Your task to perform on an android device: snooze an email in the gmail app Image 0: 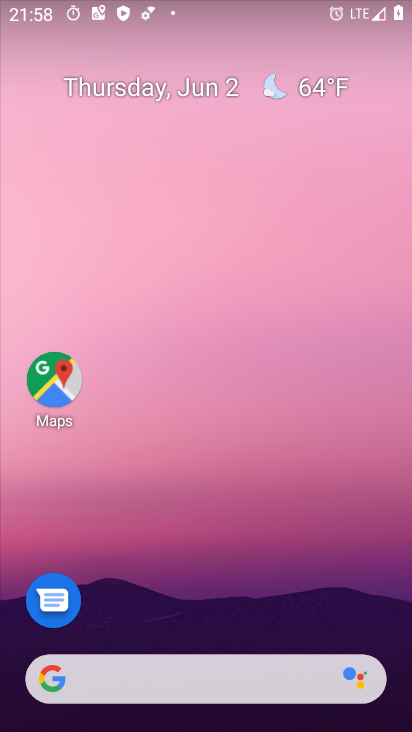
Step 0: drag from (176, 576) to (183, 98)
Your task to perform on an android device: snooze an email in the gmail app Image 1: 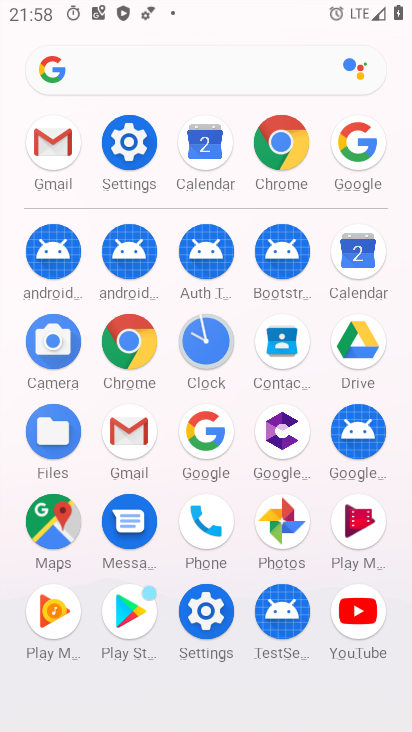
Step 1: click (125, 435)
Your task to perform on an android device: snooze an email in the gmail app Image 2: 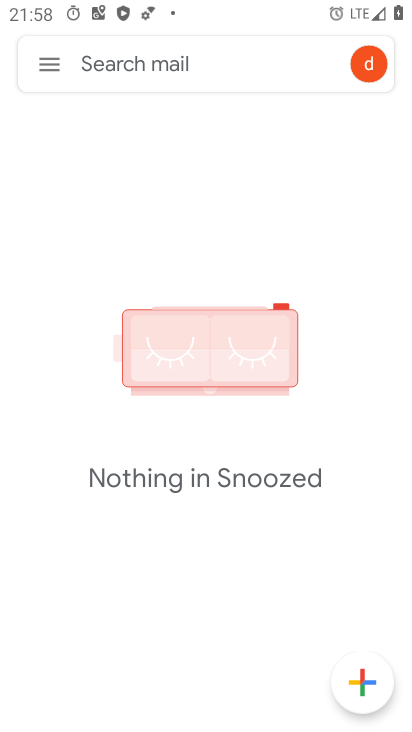
Step 2: click (45, 60)
Your task to perform on an android device: snooze an email in the gmail app Image 3: 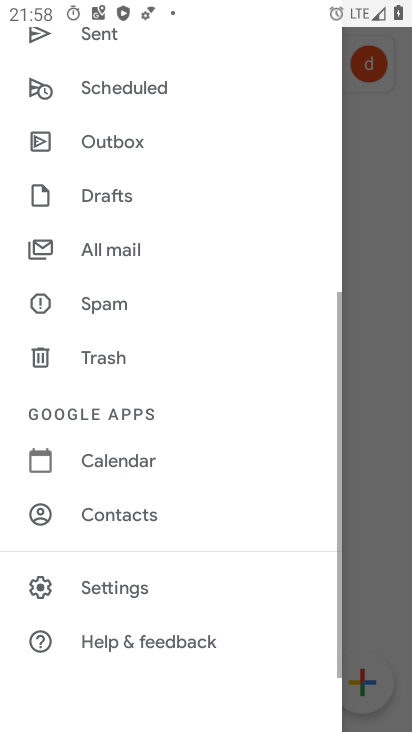
Step 3: click (111, 247)
Your task to perform on an android device: snooze an email in the gmail app Image 4: 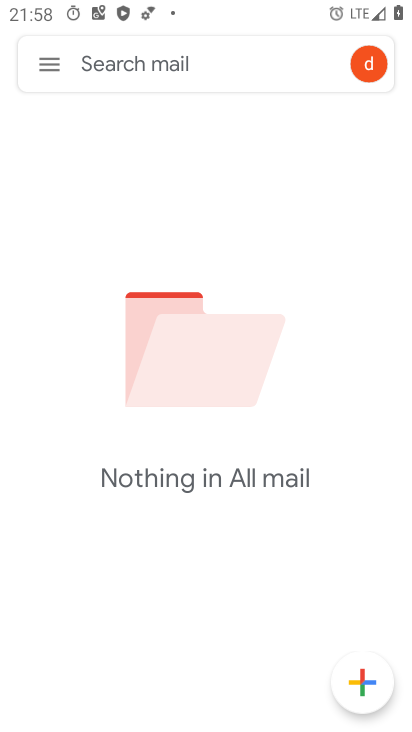
Step 4: task complete